Your task to perform on an android device: open a bookmark in the chrome app Image 0: 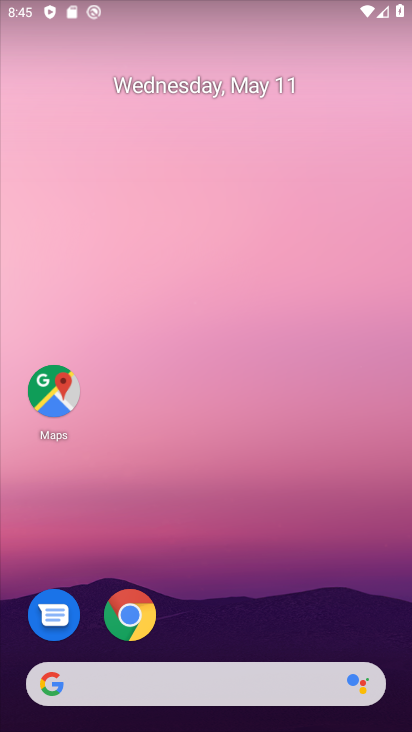
Step 0: press home button
Your task to perform on an android device: open a bookmark in the chrome app Image 1: 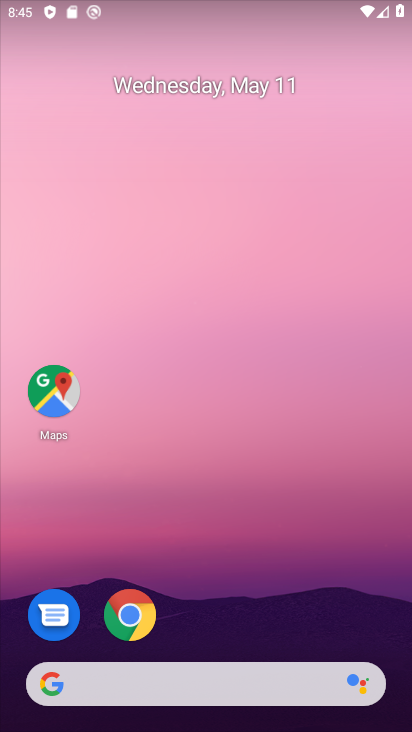
Step 1: click (128, 612)
Your task to perform on an android device: open a bookmark in the chrome app Image 2: 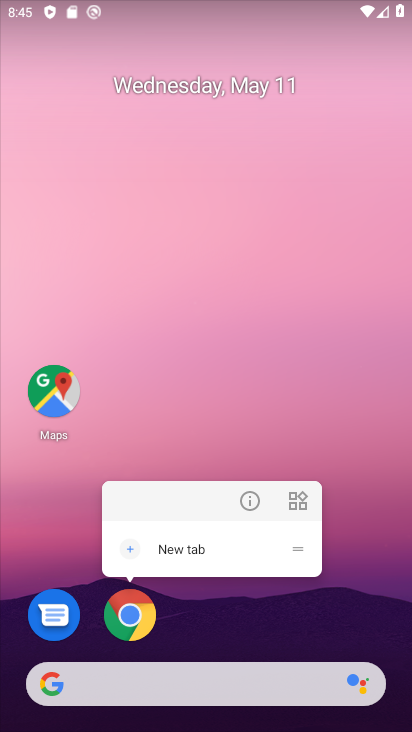
Step 2: click (129, 604)
Your task to perform on an android device: open a bookmark in the chrome app Image 3: 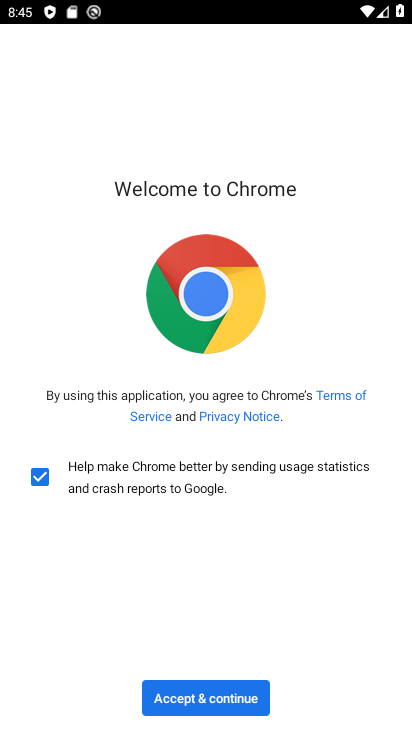
Step 3: click (223, 689)
Your task to perform on an android device: open a bookmark in the chrome app Image 4: 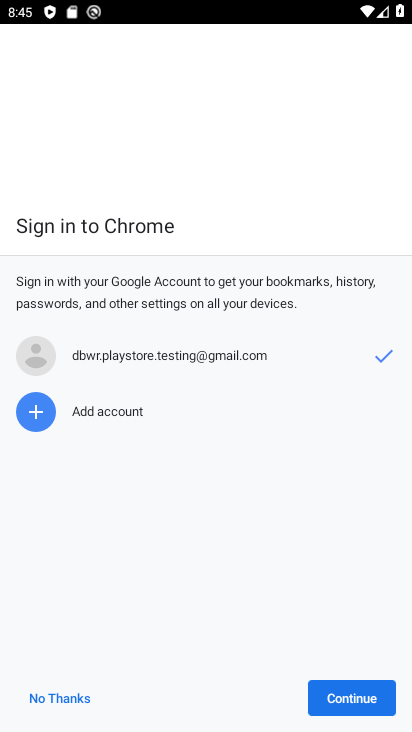
Step 4: click (76, 702)
Your task to perform on an android device: open a bookmark in the chrome app Image 5: 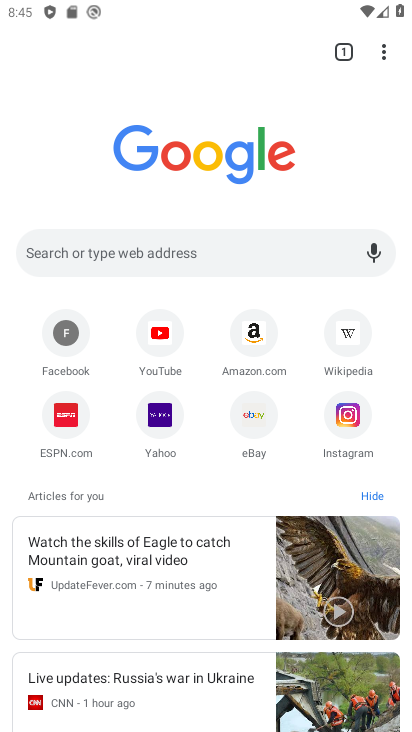
Step 5: click (378, 45)
Your task to perform on an android device: open a bookmark in the chrome app Image 6: 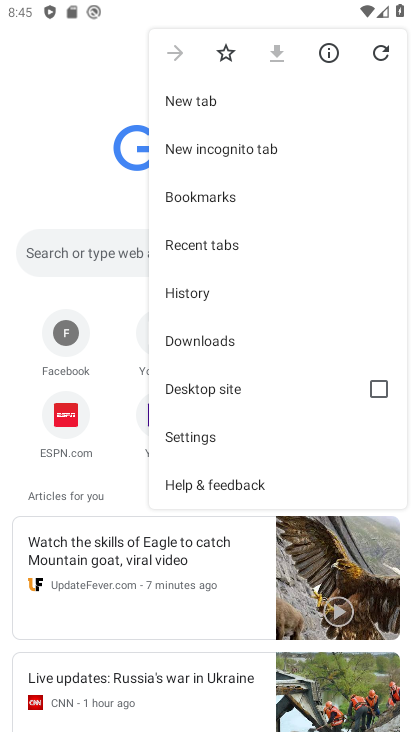
Step 6: click (217, 198)
Your task to perform on an android device: open a bookmark in the chrome app Image 7: 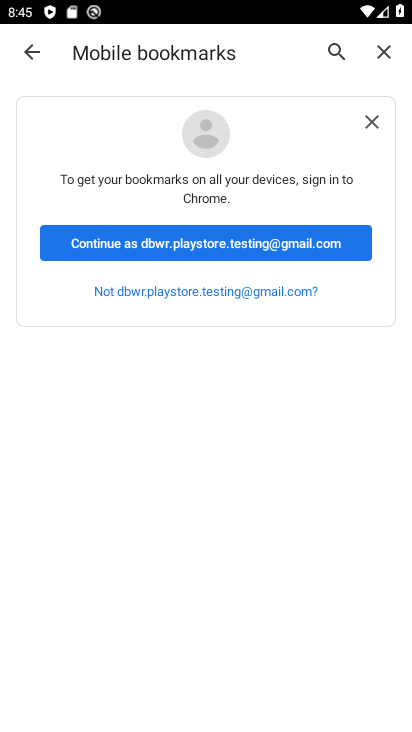
Step 7: click (375, 125)
Your task to perform on an android device: open a bookmark in the chrome app Image 8: 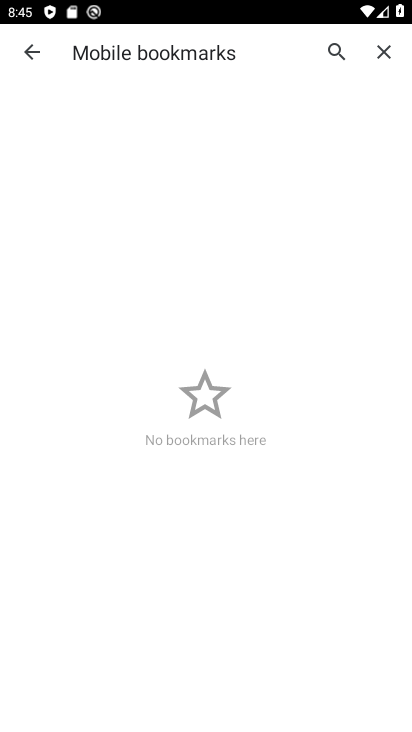
Step 8: task complete